Your task to perform on an android device: Find coffee shops on Maps Image 0: 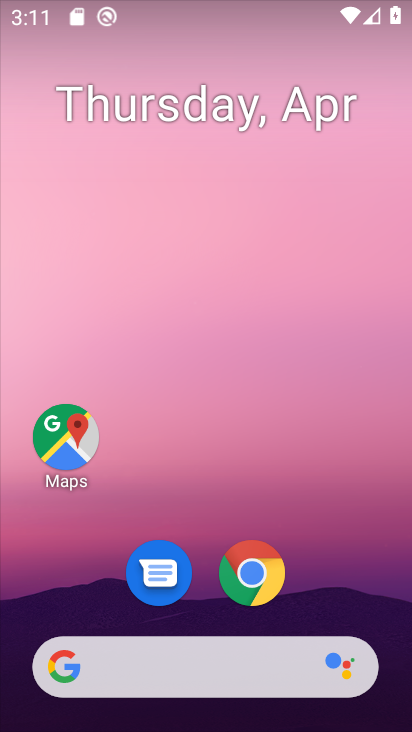
Step 0: click (58, 428)
Your task to perform on an android device: Find coffee shops on Maps Image 1: 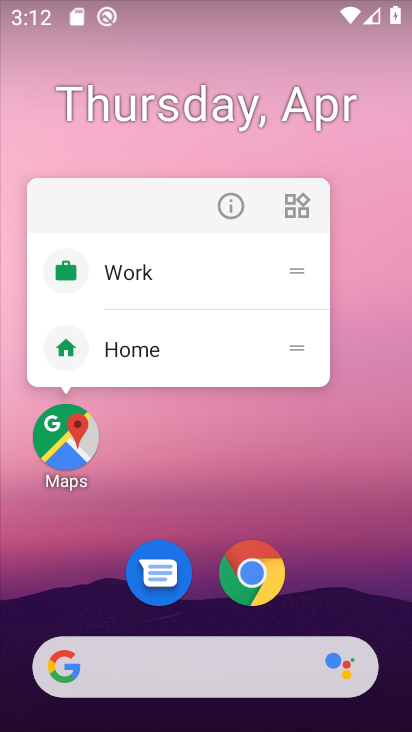
Step 1: click (59, 438)
Your task to perform on an android device: Find coffee shops on Maps Image 2: 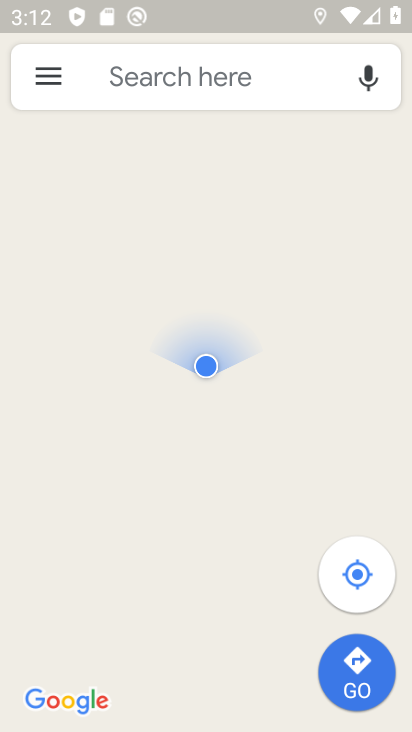
Step 2: click (183, 62)
Your task to perform on an android device: Find coffee shops on Maps Image 3: 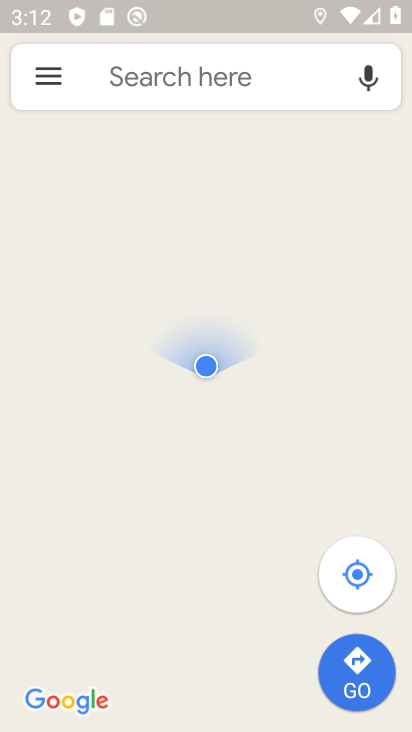
Step 3: click (131, 79)
Your task to perform on an android device: Find coffee shops on Maps Image 4: 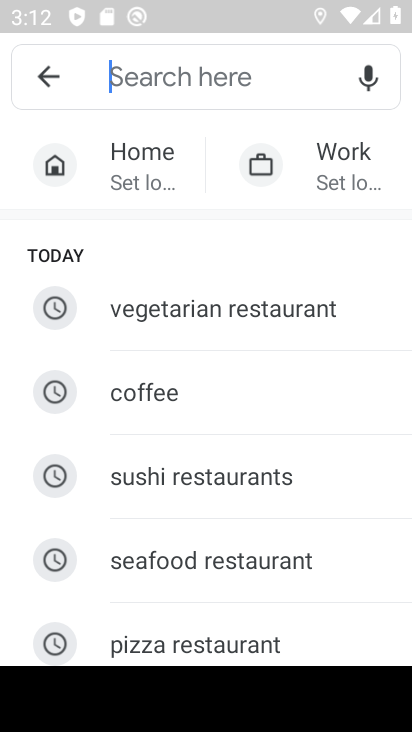
Step 4: type "coffee"
Your task to perform on an android device: Find coffee shops on Maps Image 5: 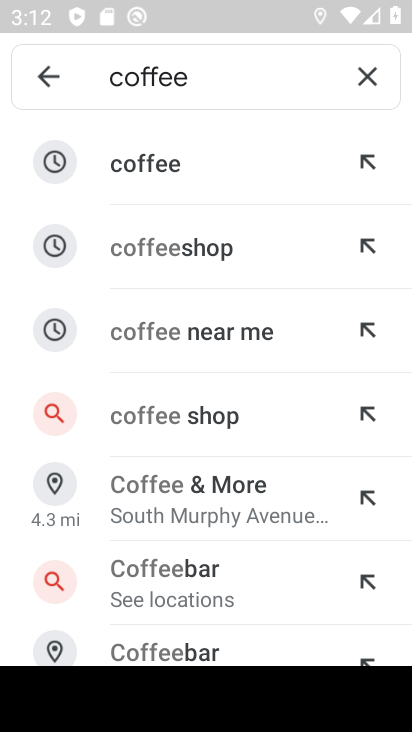
Step 5: click (126, 160)
Your task to perform on an android device: Find coffee shops on Maps Image 6: 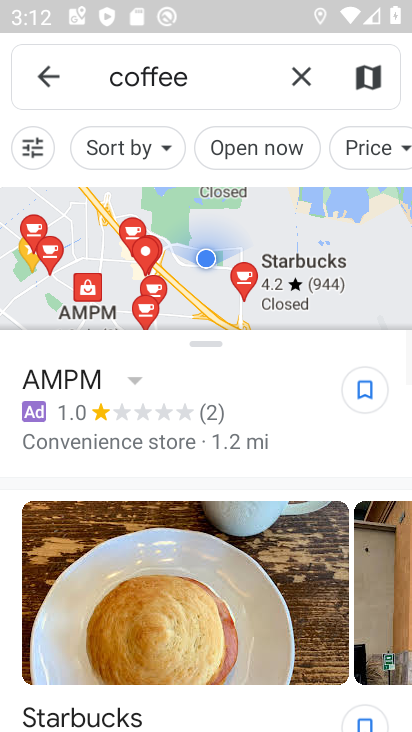
Step 6: task complete